Your task to perform on an android device: open a bookmark in the chrome app Image 0: 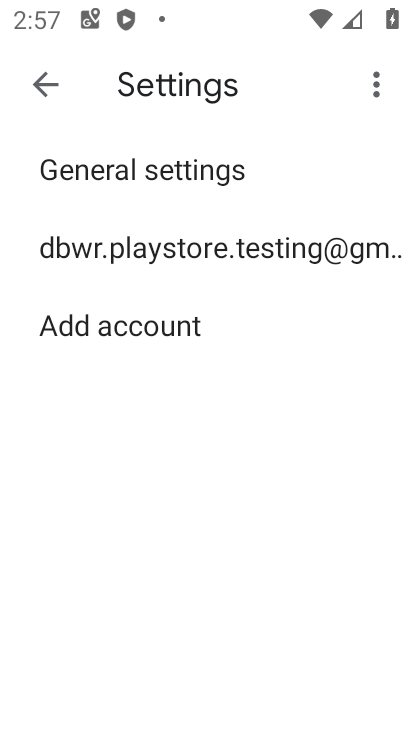
Step 0: press home button
Your task to perform on an android device: open a bookmark in the chrome app Image 1: 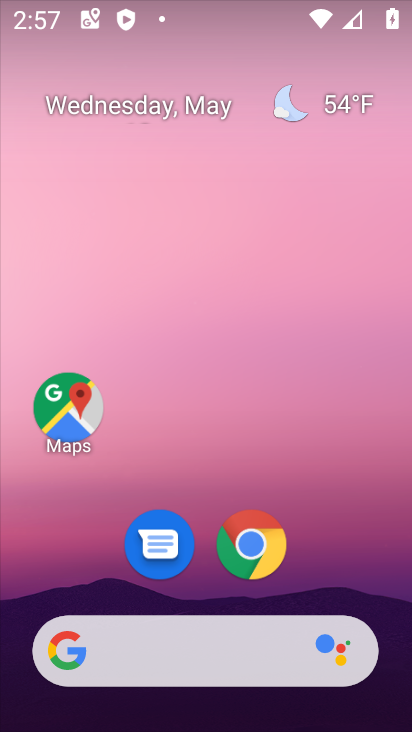
Step 1: click (286, 575)
Your task to perform on an android device: open a bookmark in the chrome app Image 2: 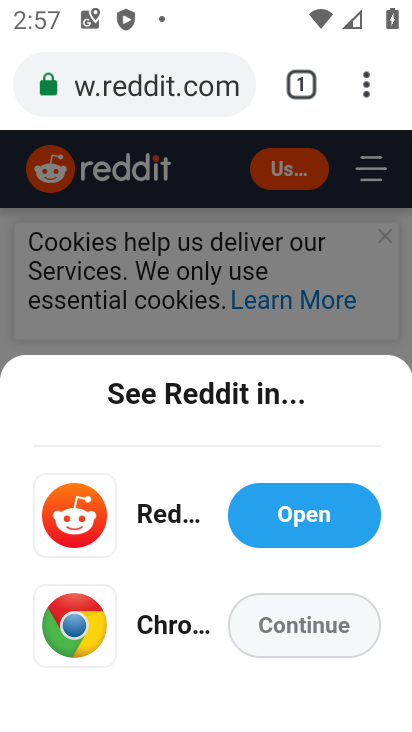
Step 2: click (299, 621)
Your task to perform on an android device: open a bookmark in the chrome app Image 3: 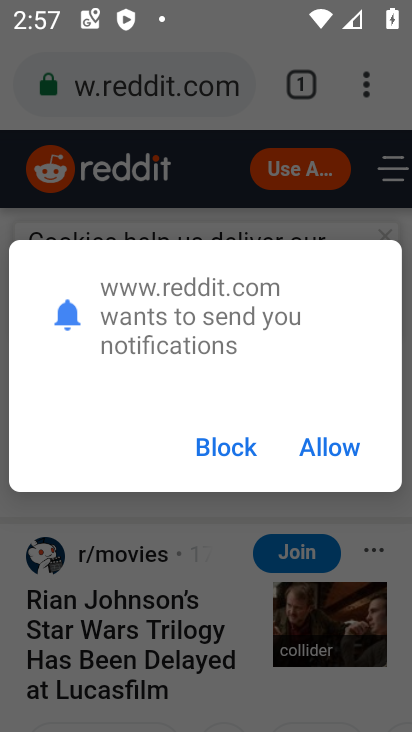
Step 3: click (308, 445)
Your task to perform on an android device: open a bookmark in the chrome app Image 4: 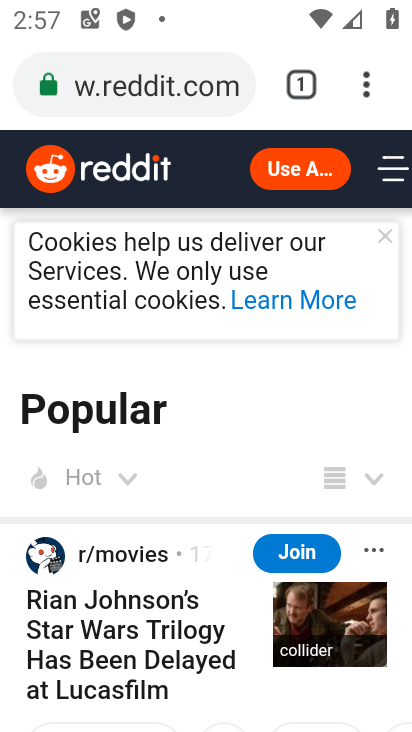
Step 4: click (371, 81)
Your task to perform on an android device: open a bookmark in the chrome app Image 5: 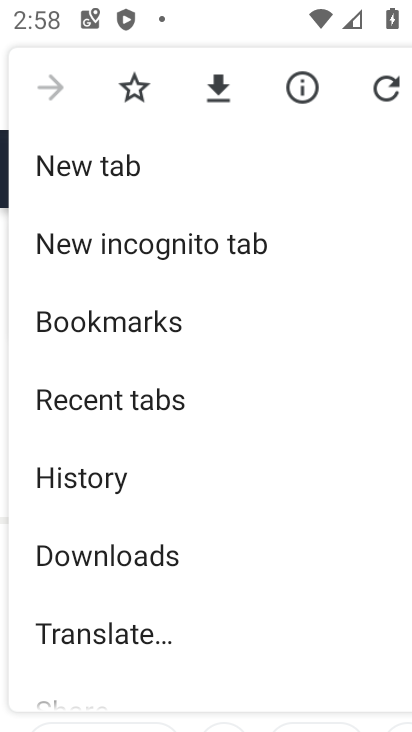
Step 5: click (261, 304)
Your task to perform on an android device: open a bookmark in the chrome app Image 6: 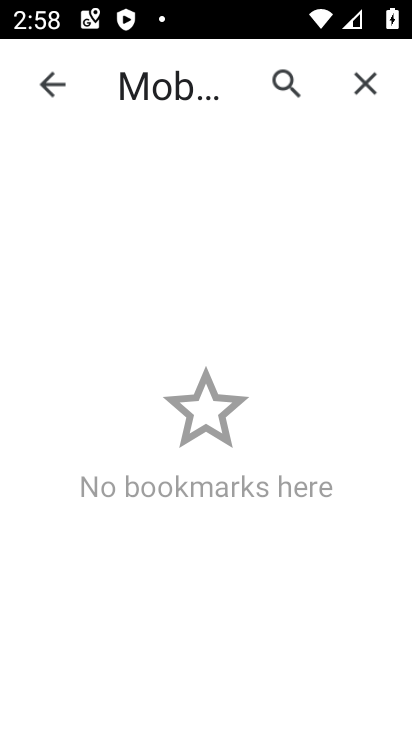
Step 6: task complete